Your task to perform on an android device: turn off location history Image 0: 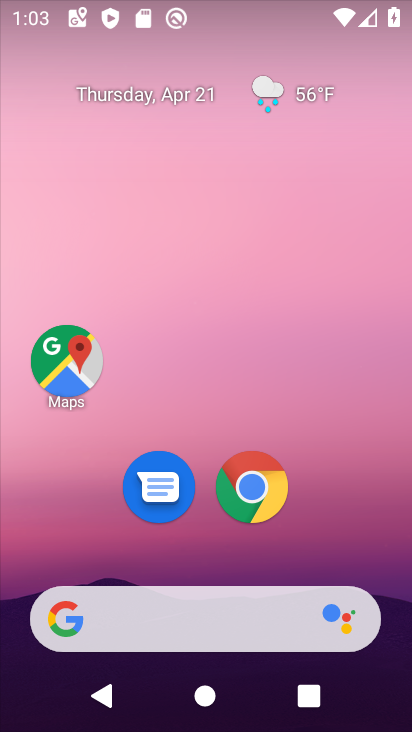
Step 0: click (71, 360)
Your task to perform on an android device: turn off location history Image 1: 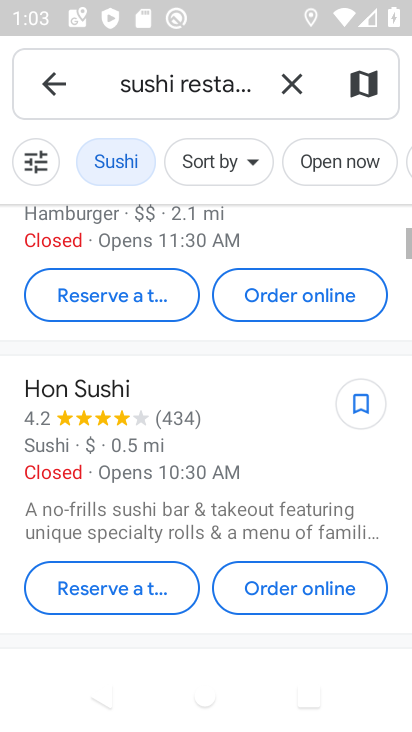
Step 1: click (291, 85)
Your task to perform on an android device: turn off location history Image 2: 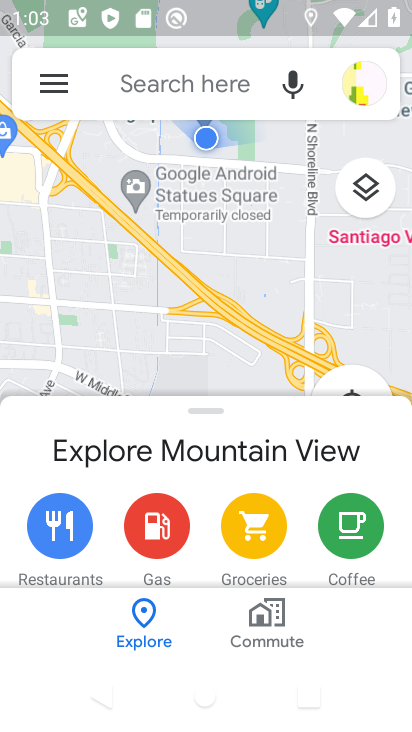
Step 2: click (46, 87)
Your task to perform on an android device: turn off location history Image 3: 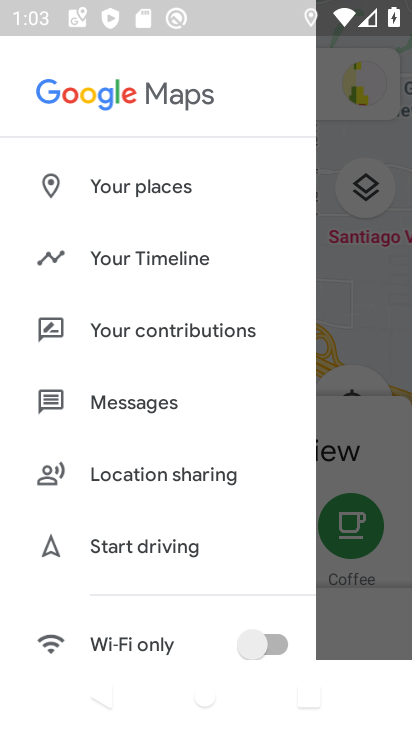
Step 3: click (165, 266)
Your task to perform on an android device: turn off location history Image 4: 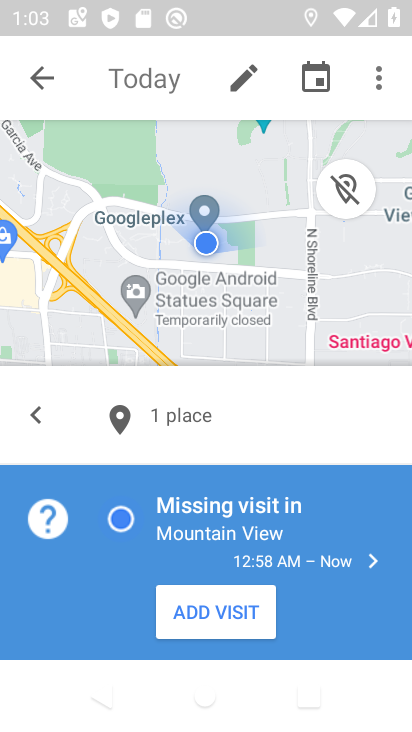
Step 4: click (384, 79)
Your task to perform on an android device: turn off location history Image 5: 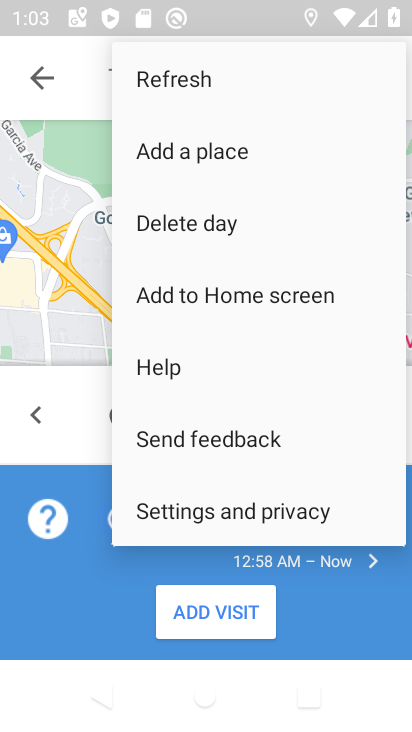
Step 5: click (179, 514)
Your task to perform on an android device: turn off location history Image 6: 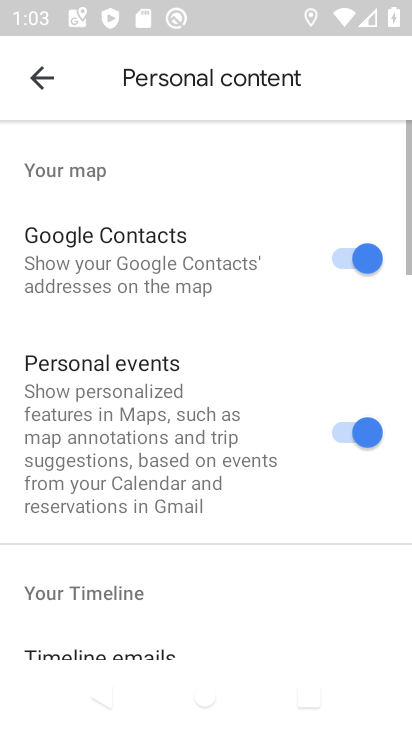
Step 6: drag from (179, 514) to (176, 96)
Your task to perform on an android device: turn off location history Image 7: 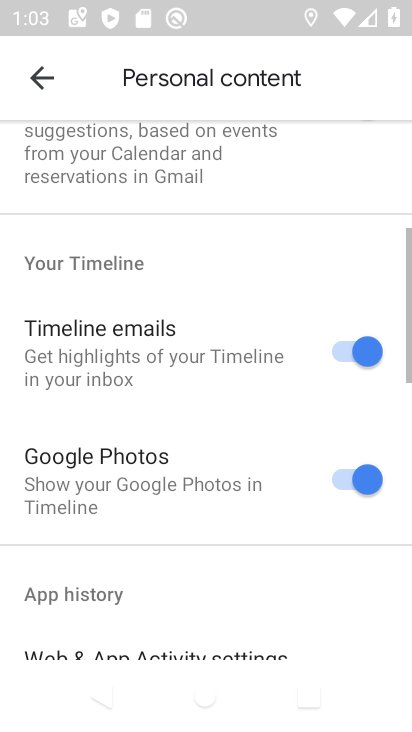
Step 7: drag from (155, 542) to (161, 102)
Your task to perform on an android device: turn off location history Image 8: 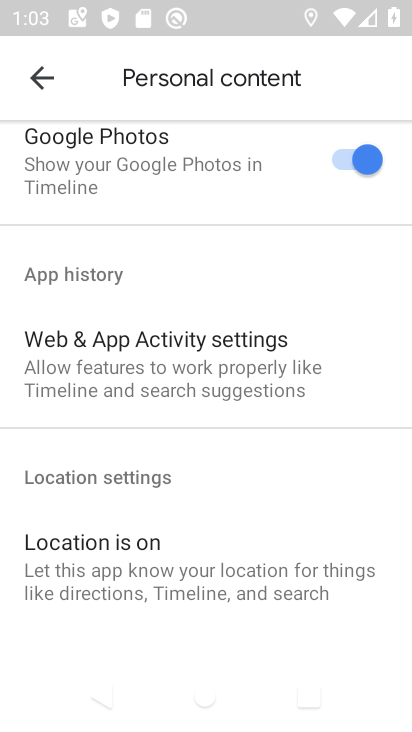
Step 8: drag from (180, 462) to (160, 135)
Your task to perform on an android device: turn off location history Image 9: 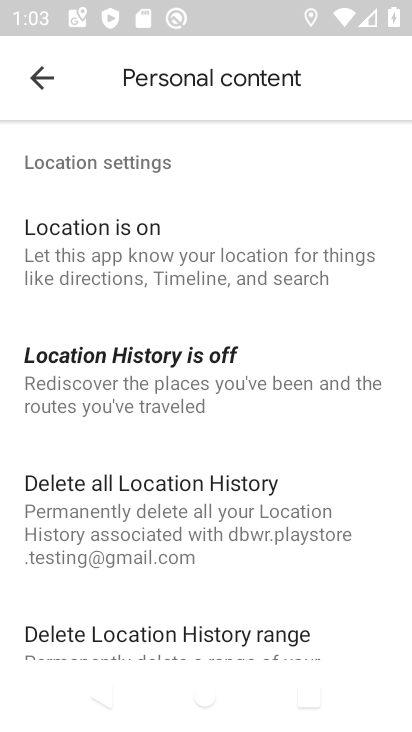
Step 9: click (140, 390)
Your task to perform on an android device: turn off location history Image 10: 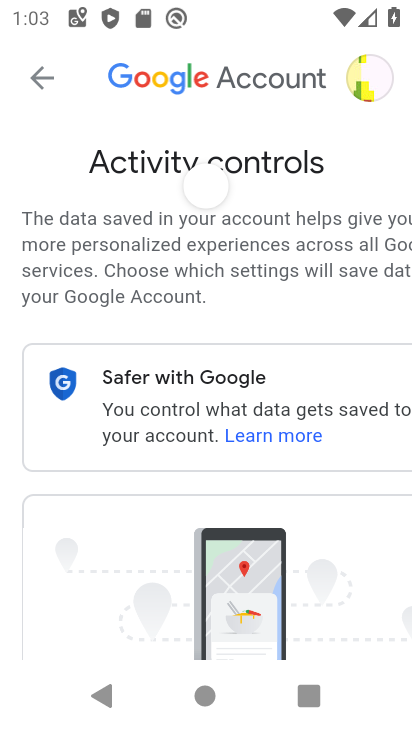
Step 10: drag from (239, 562) to (191, 181)
Your task to perform on an android device: turn off location history Image 11: 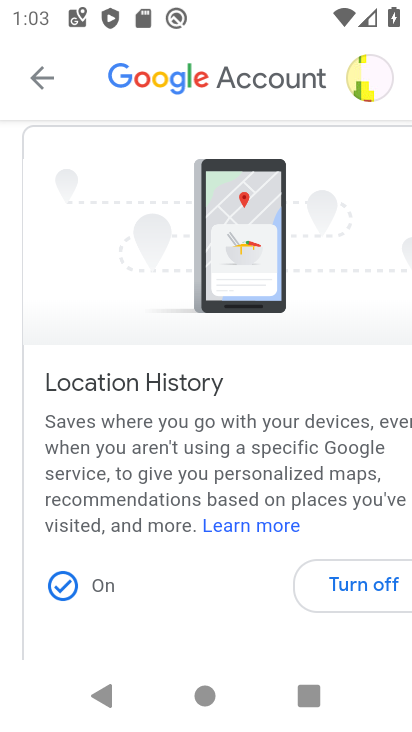
Step 11: click (357, 587)
Your task to perform on an android device: turn off location history Image 12: 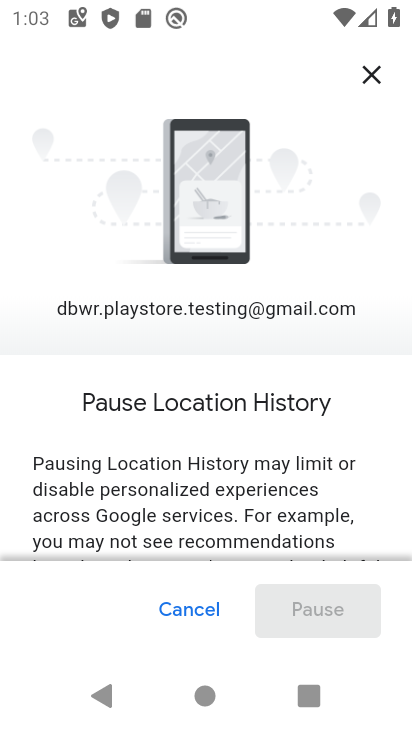
Step 12: drag from (182, 511) to (133, 86)
Your task to perform on an android device: turn off location history Image 13: 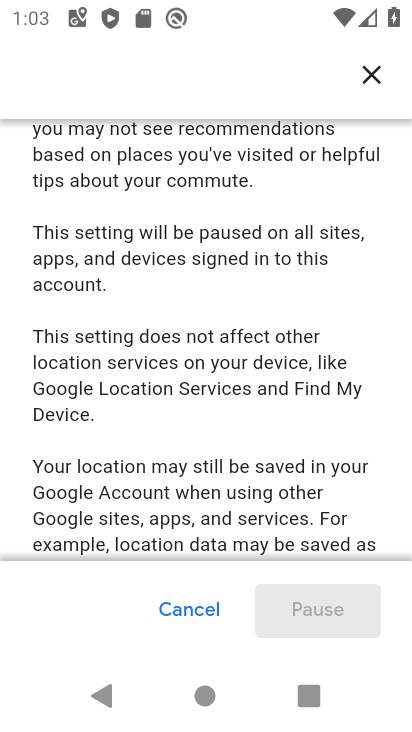
Step 13: drag from (240, 457) to (161, 86)
Your task to perform on an android device: turn off location history Image 14: 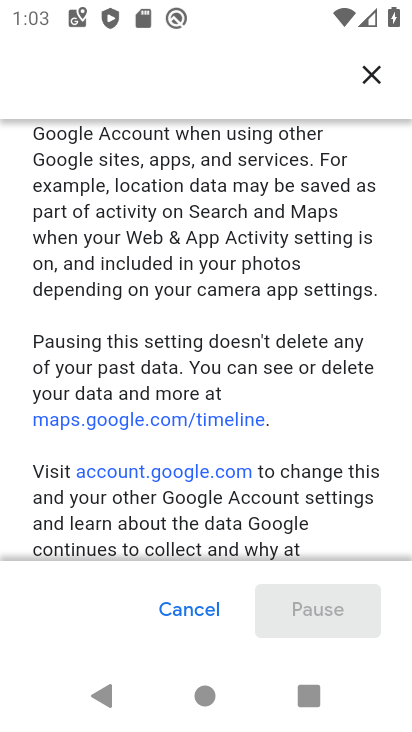
Step 14: drag from (224, 503) to (166, 97)
Your task to perform on an android device: turn off location history Image 15: 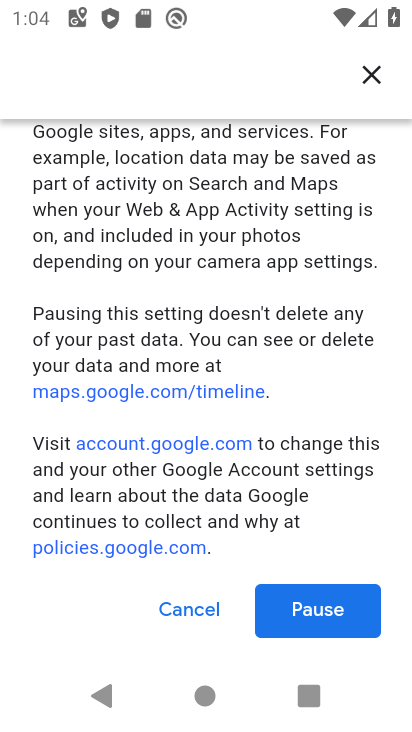
Step 15: click (304, 624)
Your task to perform on an android device: turn off location history Image 16: 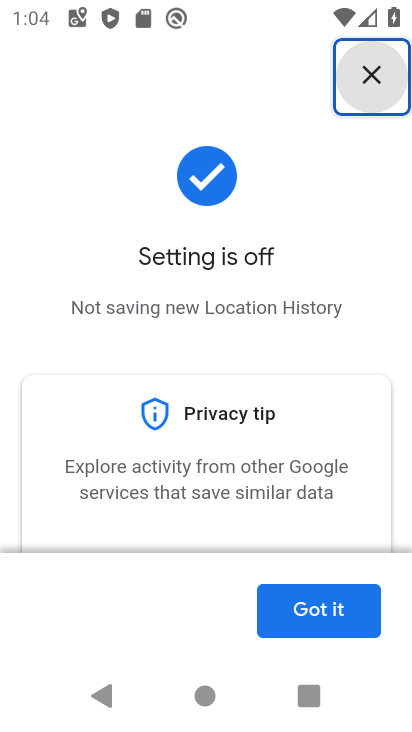
Step 16: click (308, 615)
Your task to perform on an android device: turn off location history Image 17: 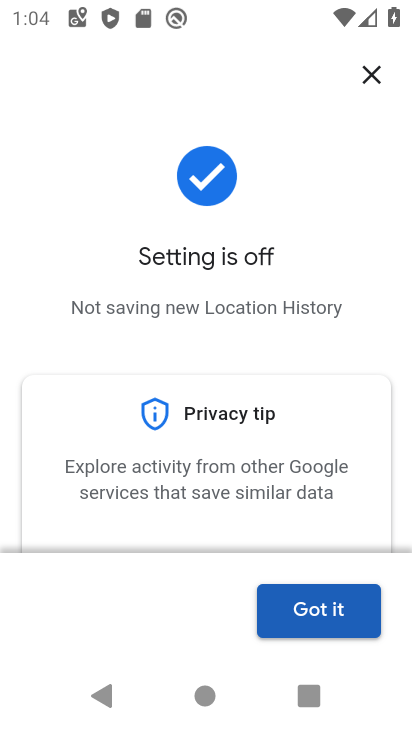
Step 17: click (311, 621)
Your task to perform on an android device: turn off location history Image 18: 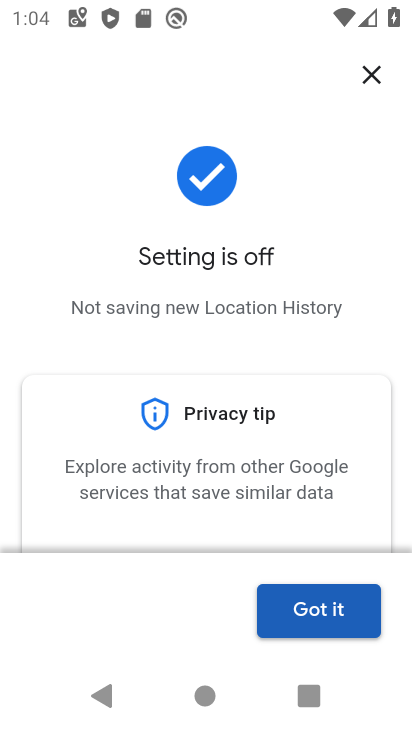
Step 18: click (324, 616)
Your task to perform on an android device: turn off location history Image 19: 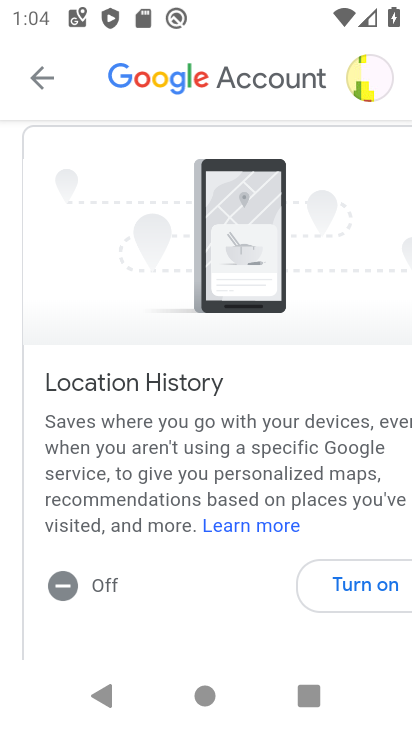
Step 19: task complete